Your task to perform on an android device: turn pop-ups off in chrome Image 0: 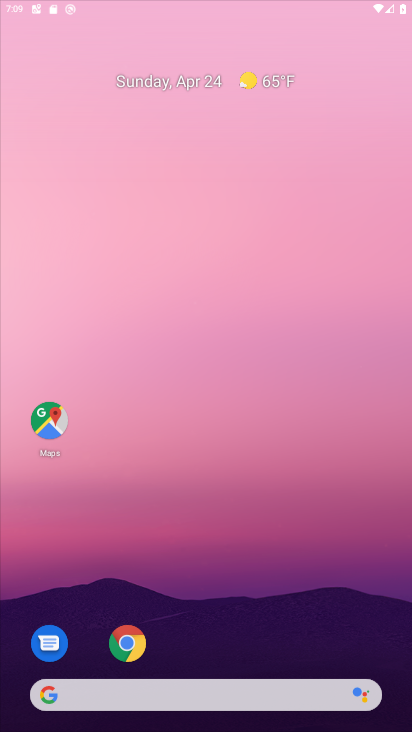
Step 0: drag from (181, 544) to (182, 0)
Your task to perform on an android device: turn pop-ups off in chrome Image 1: 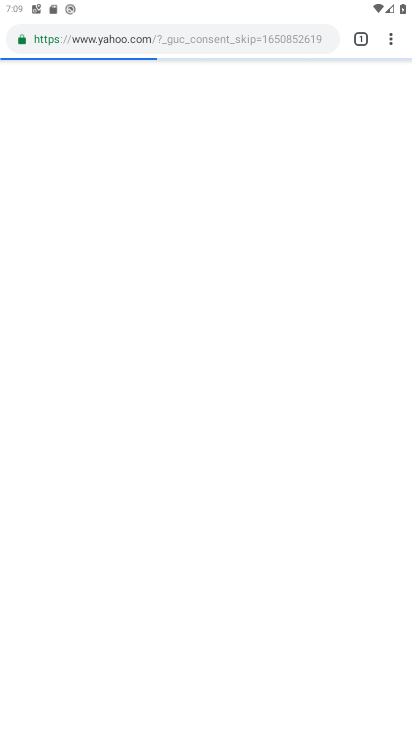
Step 1: press home button
Your task to perform on an android device: turn pop-ups off in chrome Image 2: 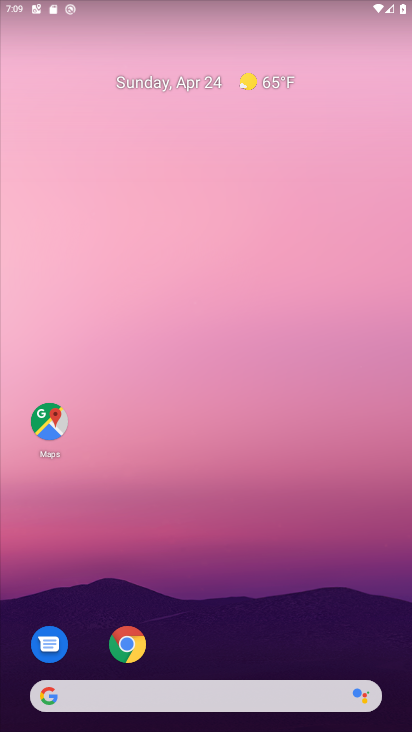
Step 2: click (123, 639)
Your task to perform on an android device: turn pop-ups off in chrome Image 3: 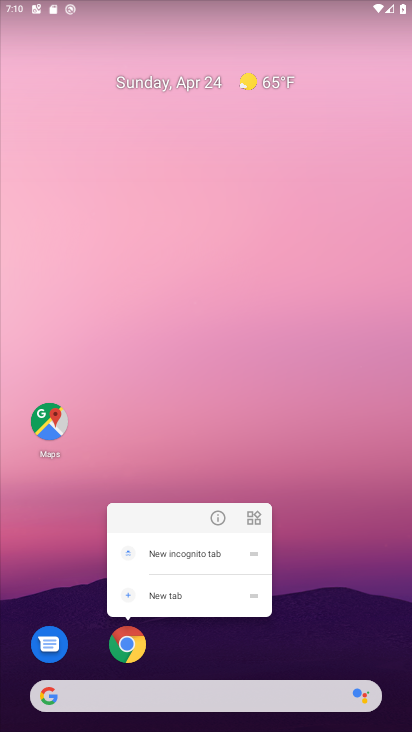
Step 3: click (307, 492)
Your task to perform on an android device: turn pop-ups off in chrome Image 4: 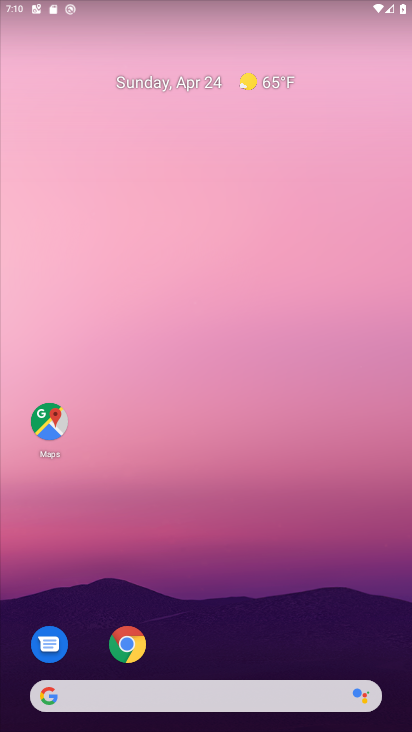
Step 4: drag from (283, 656) to (265, 29)
Your task to perform on an android device: turn pop-ups off in chrome Image 5: 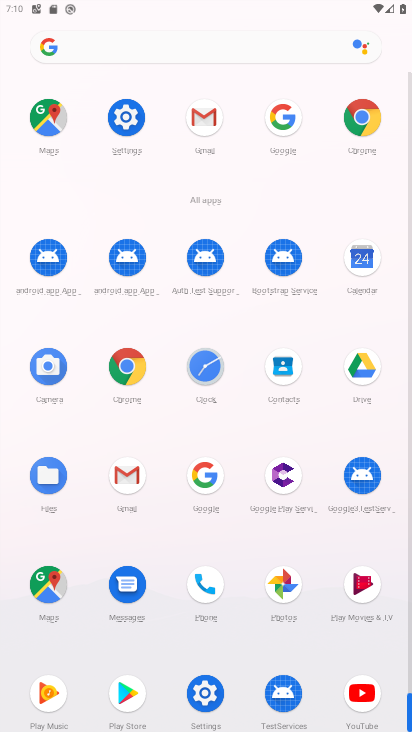
Step 5: click (124, 362)
Your task to perform on an android device: turn pop-ups off in chrome Image 6: 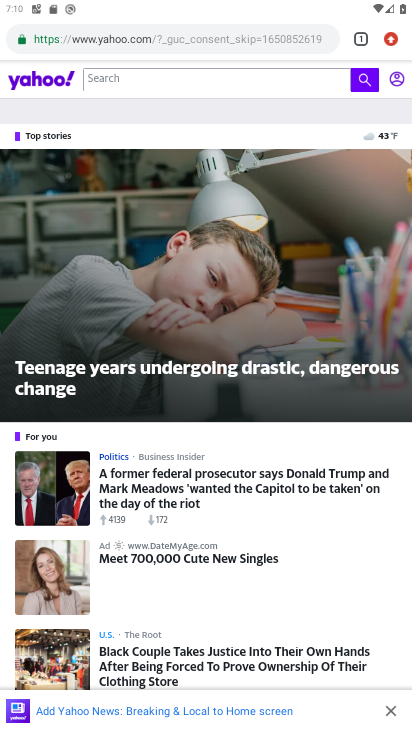
Step 6: click (388, 38)
Your task to perform on an android device: turn pop-ups off in chrome Image 7: 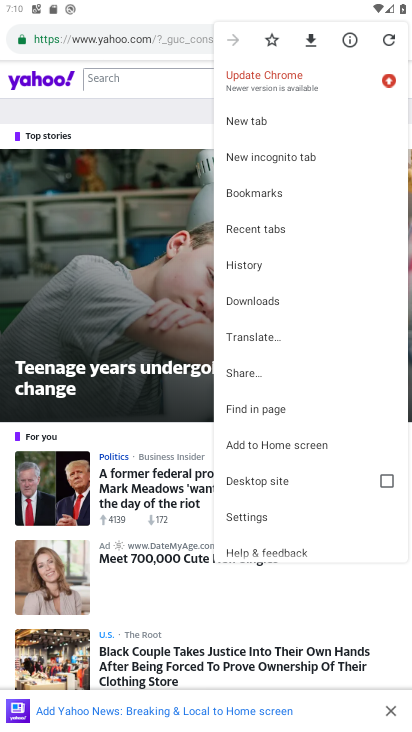
Step 7: click (275, 514)
Your task to perform on an android device: turn pop-ups off in chrome Image 8: 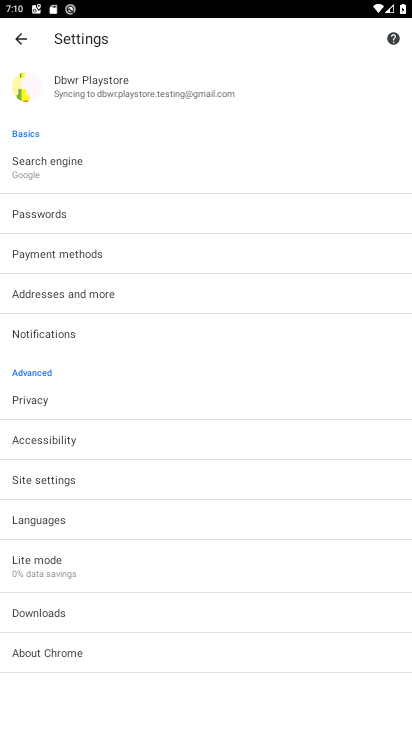
Step 8: click (84, 471)
Your task to perform on an android device: turn pop-ups off in chrome Image 9: 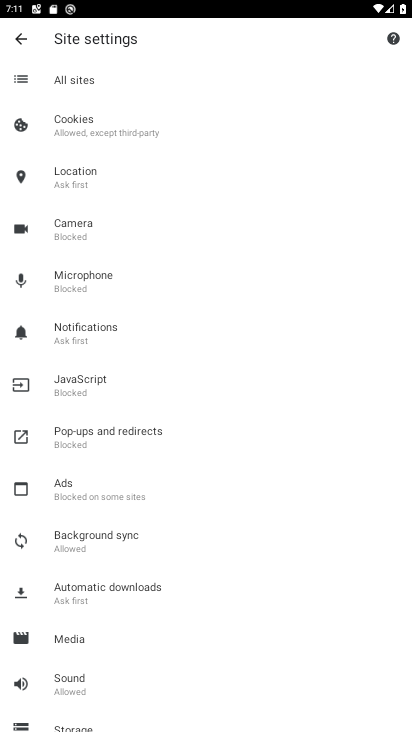
Step 9: click (124, 436)
Your task to perform on an android device: turn pop-ups off in chrome Image 10: 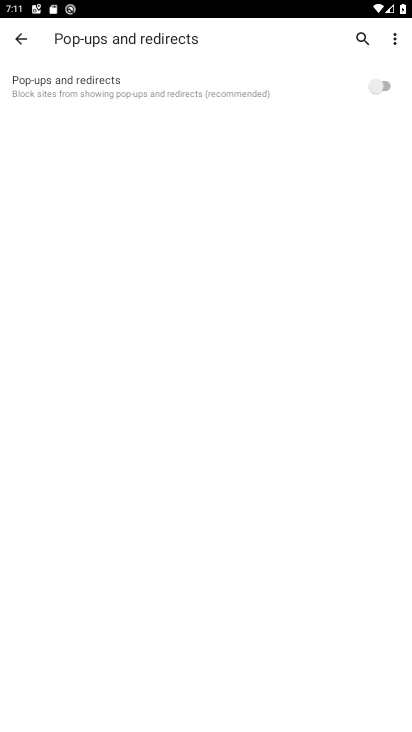
Step 10: task complete